Your task to perform on an android device: Open wifi settings Image 0: 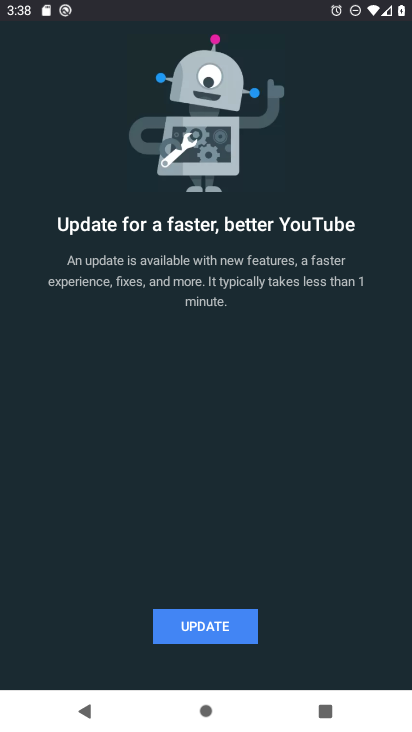
Step 0: press home button
Your task to perform on an android device: Open wifi settings Image 1: 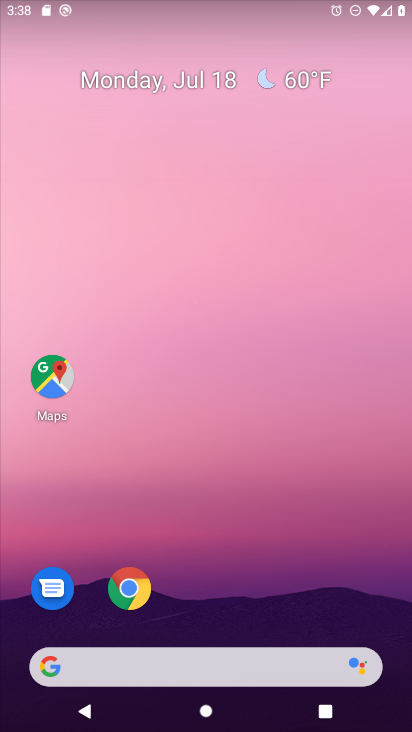
Step 1: drag from (240, 619) to (233, 68)
Your task to perform on an android device: Open wifi settings Image 2: 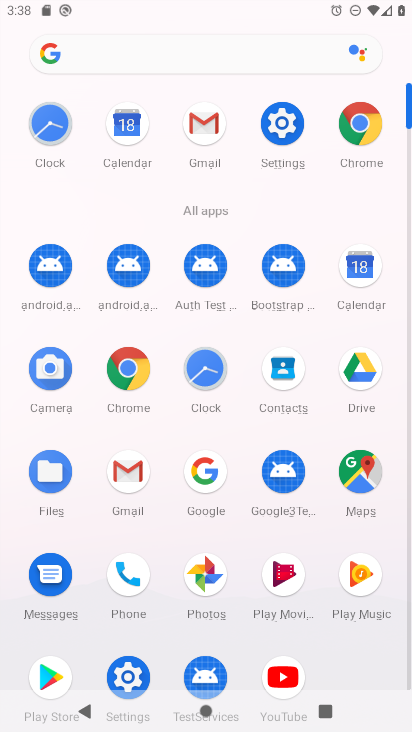
Step 2: click (277, 112)
Your task to perform on an android device: Open wifi settings Image 3: 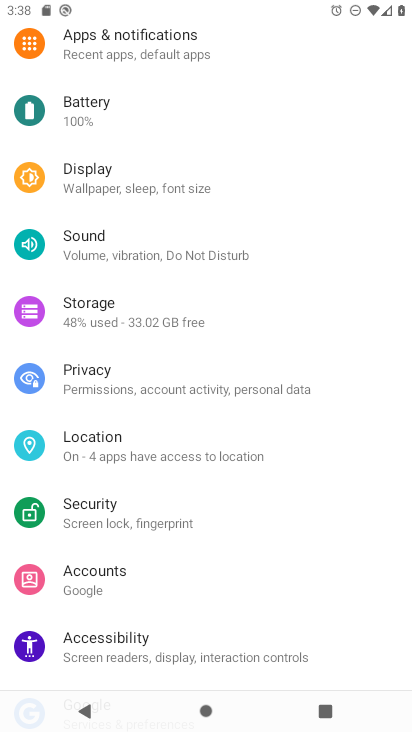
Step 3: drag from (165, 89) to (148, 574)
Your task to perform on an android device: Open wifi settings Image 4: 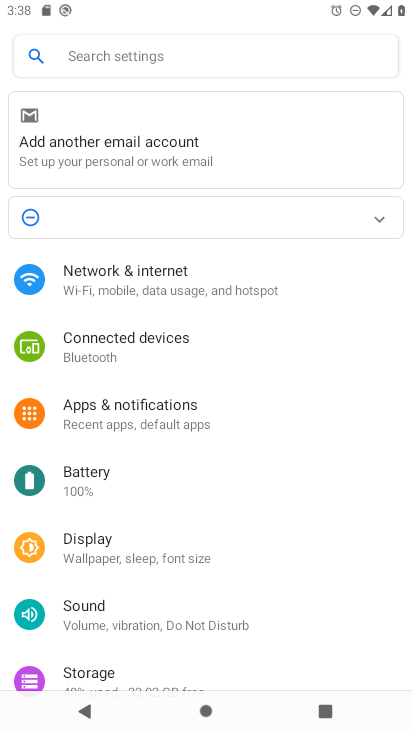
Step 4: click (173, 272)
Your task to perform on an android device: Open wifi settings Image 5: 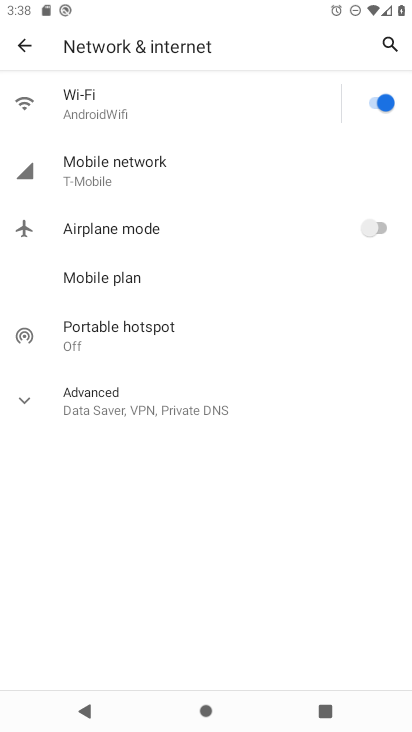
Step 5: click (136, 103)
Your task to perform on an android device: Open wifi settings Image 6: 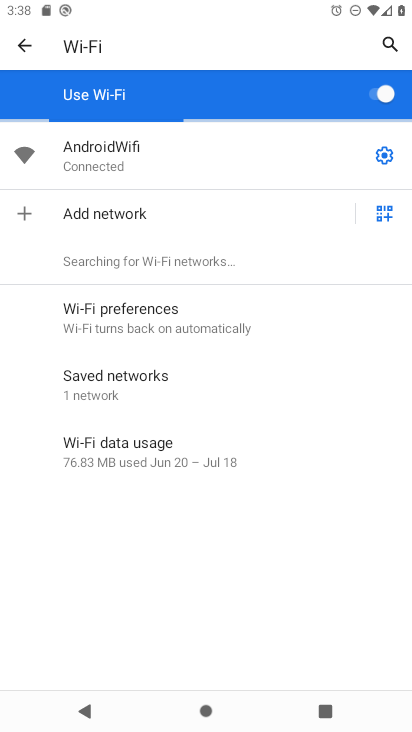
Step 6: task complete